Your task to perform on an android device: read, delete, or share a saved page in the chrome app Image 0: 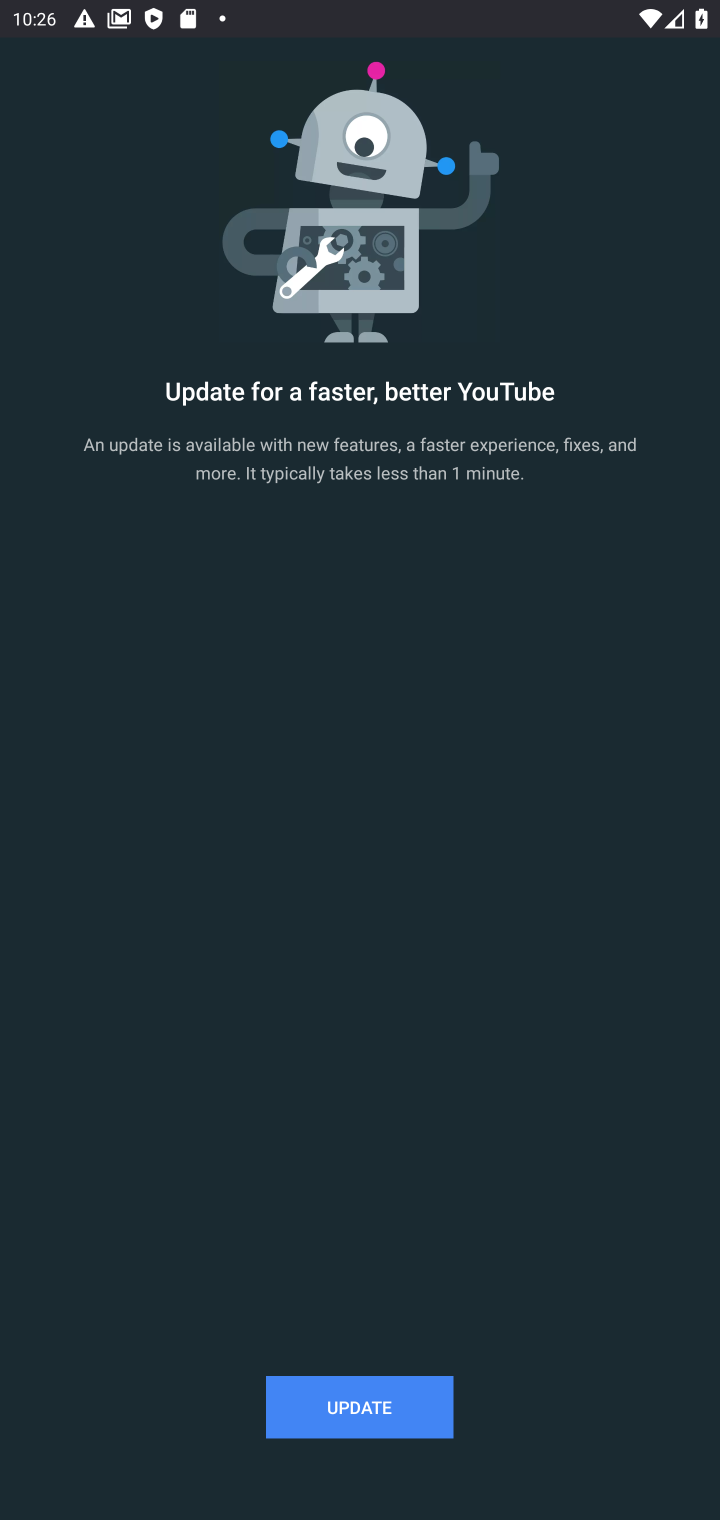
Step 0: press back button
Your task to perform on an android device: read, delete, or share a saved page in the chrome app Image 1: 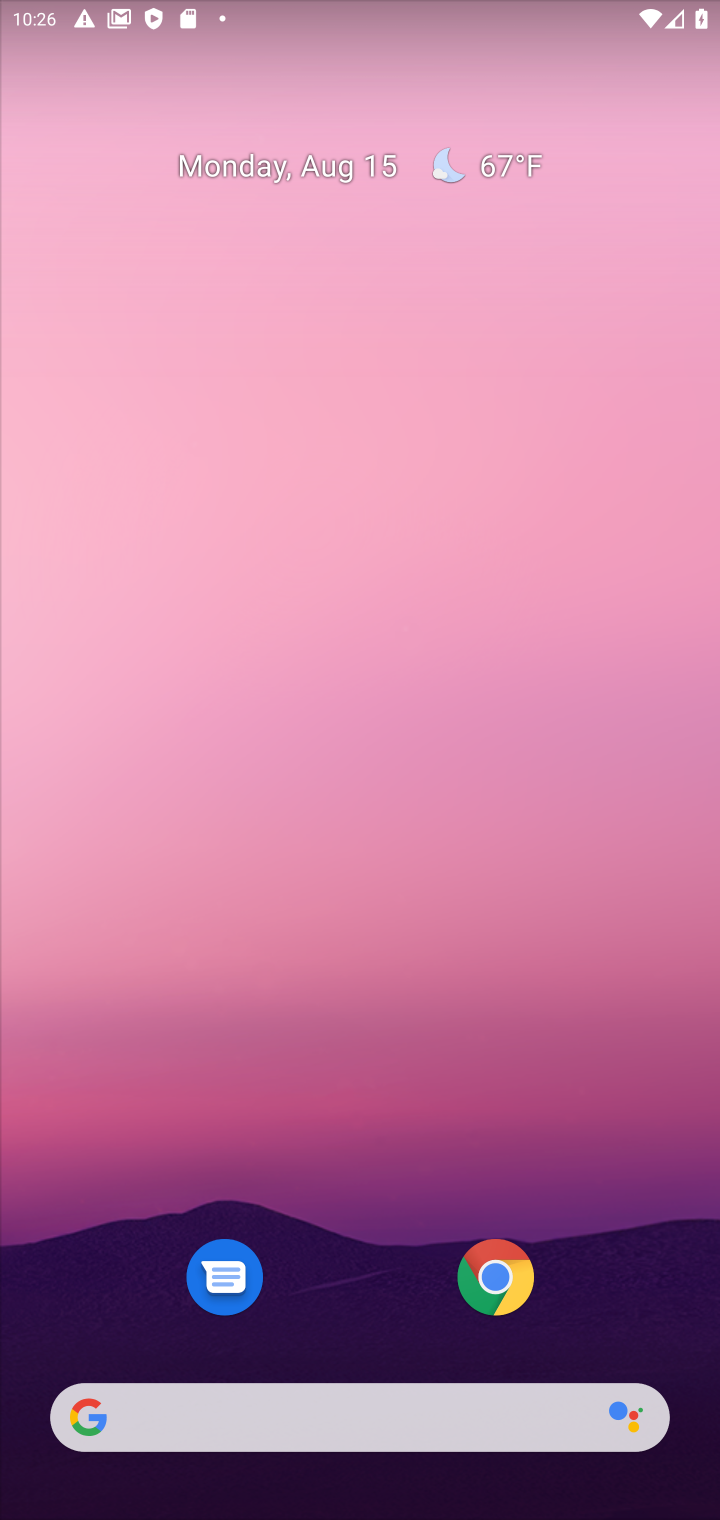
Step 1: click (556, 1287)
Your task to perform on an android device: read, delete, or share a saved page in the chrome app Image 2: 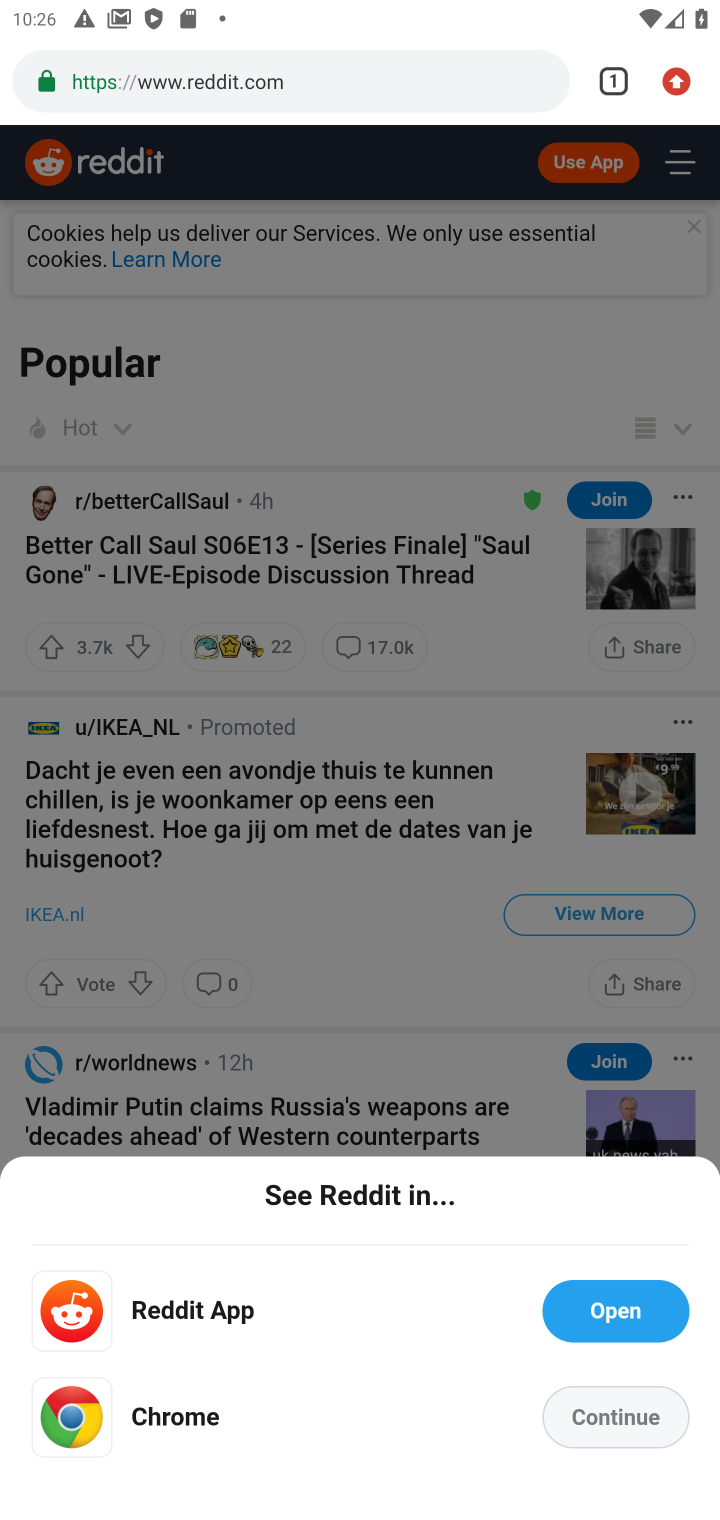
Step 2: drag from (687, 61) to (380, 625)
Your task to perform on an android device: read, delete, or share a saved page in the chrome app Image 3: 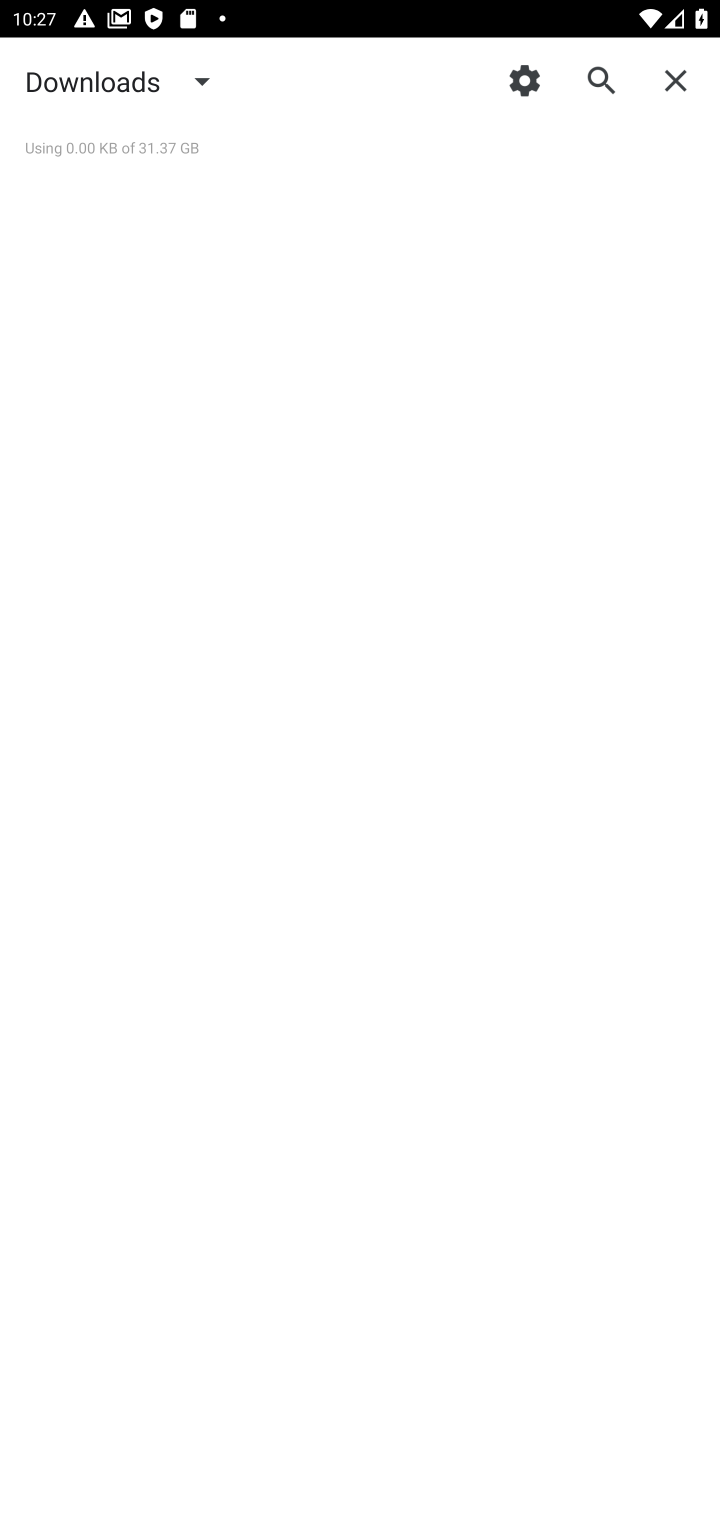
Step 3: click (187, 67)
Your task to perform on an android device: read, delete, or share a saved page in the chrome app Image 4: 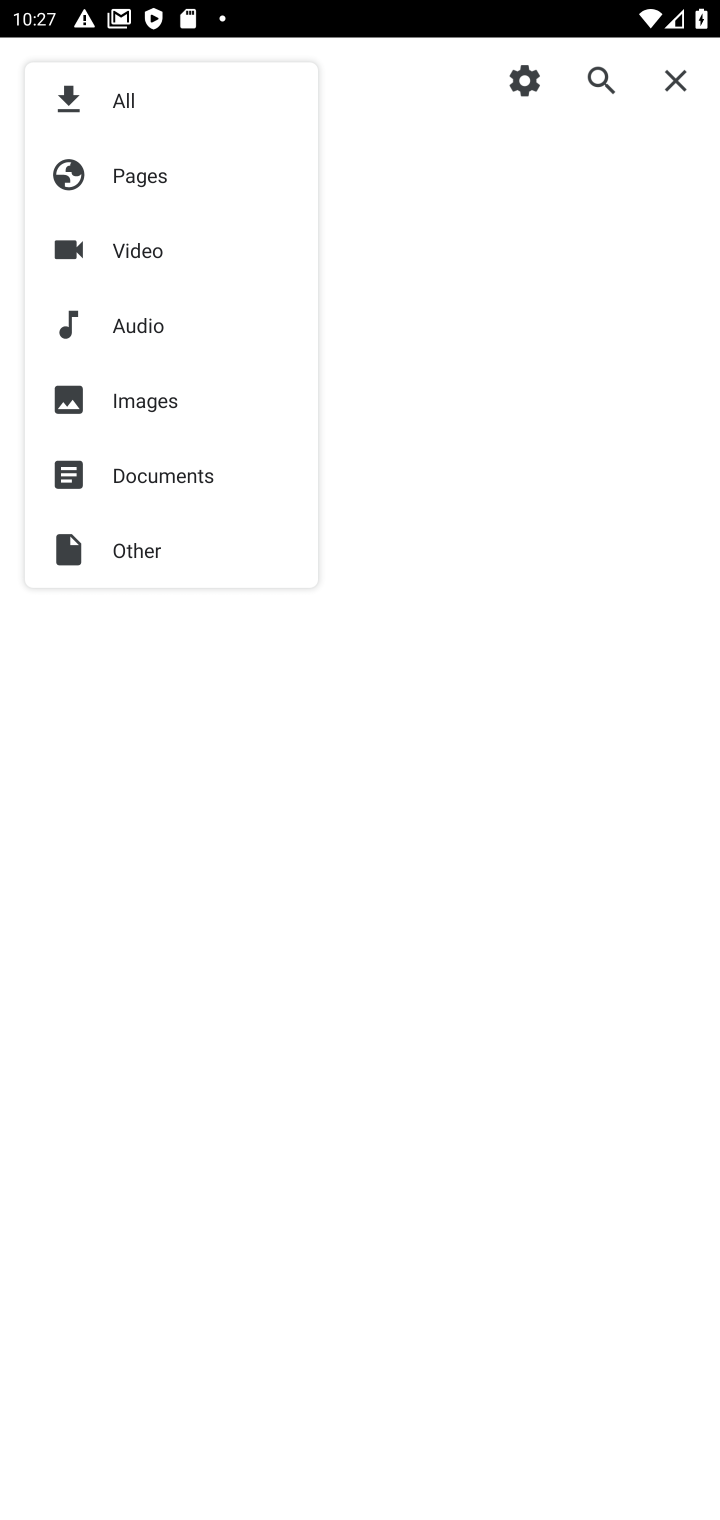
Step 4: click (120, 171)
Your task to perform on an android device: read, delete, or share a saved page in the chrome app Image 5: 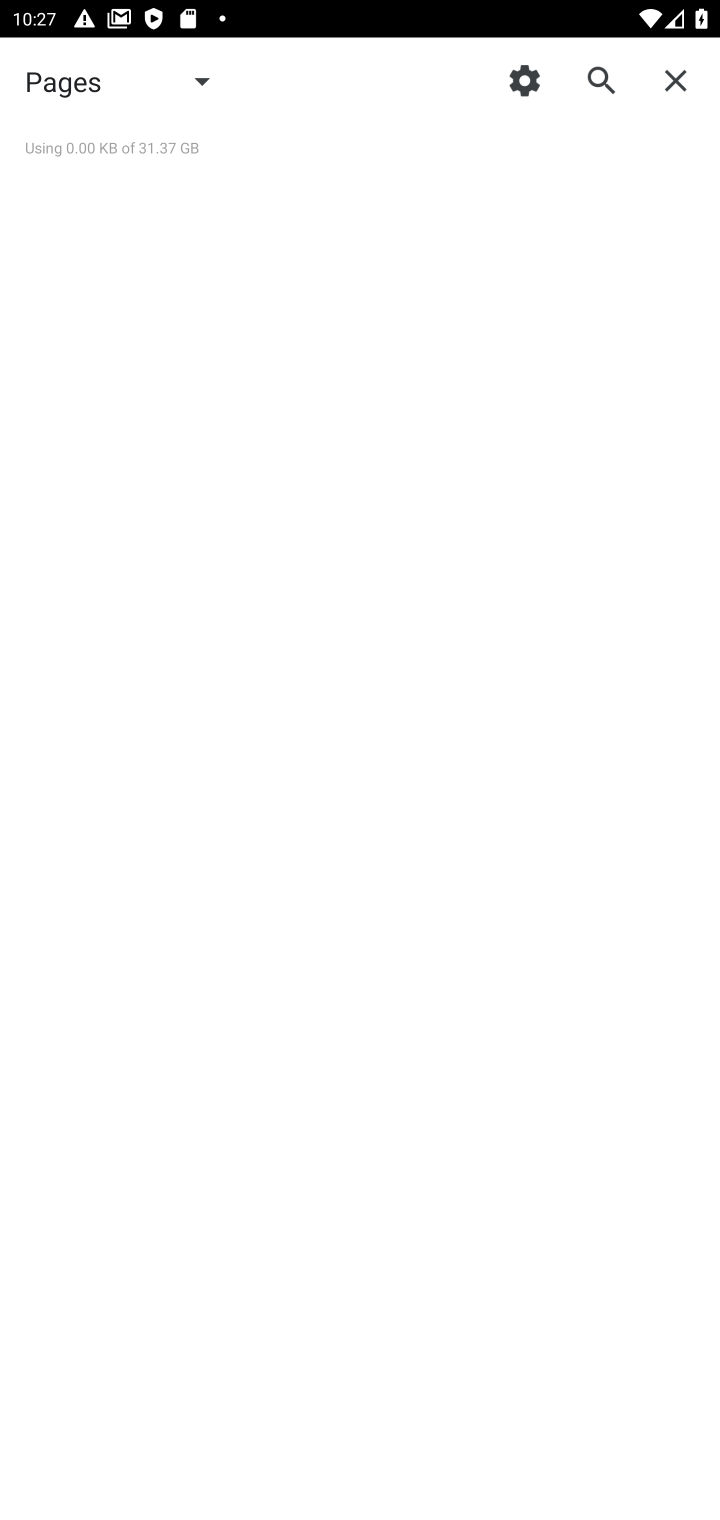
Step 5: task complete